Your task to perform on an android device: Search for vegetarian restaurants on Maps Image 0: 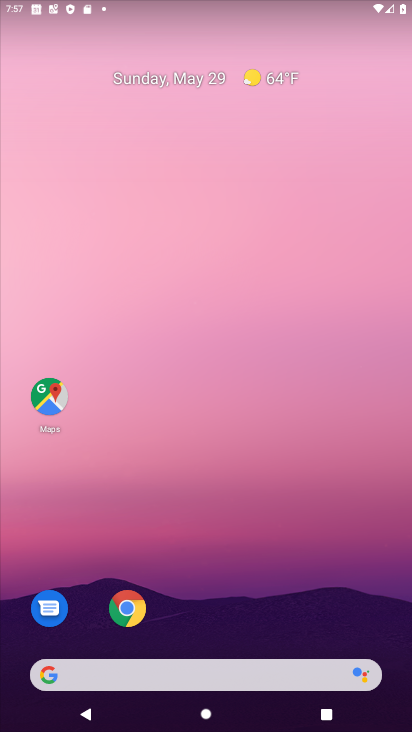
Step 0: drag from (255, 556) to (167, 104)
Your task to perform on an android device: Search for vegetarian restaurants on Maps Image 1: 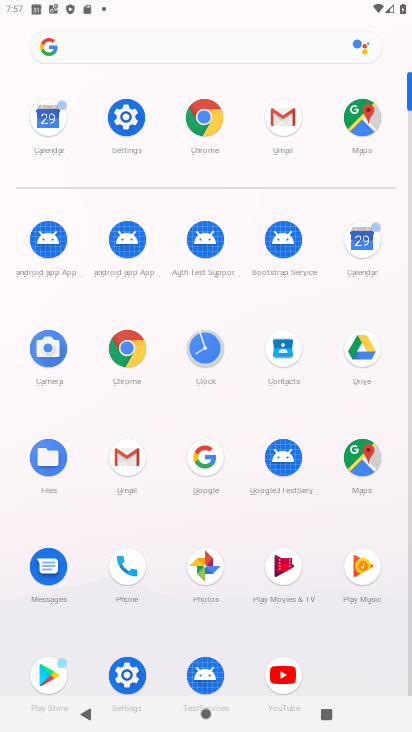
Step 1: click (354, 121)
Your task to perform on an android device: Search for vegetarian restaurants on Maps Image 2: 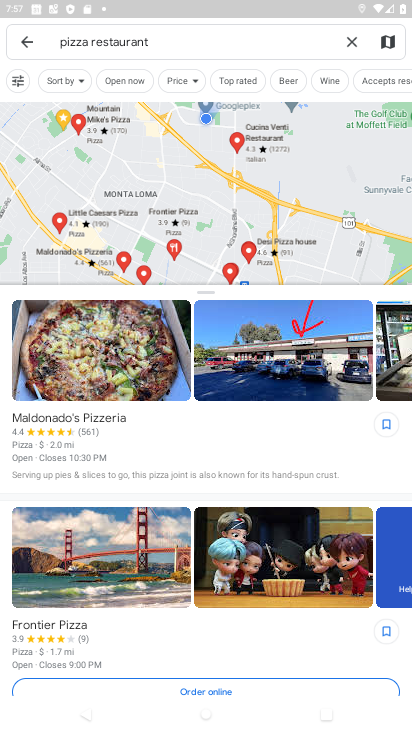
Step 2: click (346, 41)
Your task to perform on an android device: Search for vegetarian restaurants on Maps Image 3: 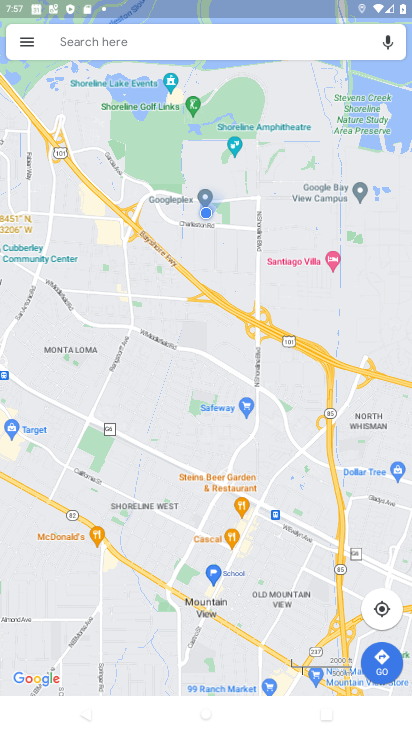
Step 3: click (184, 41)
Your task to perform on an android device: Search for vegetarian restaurants on Maps Image 4: 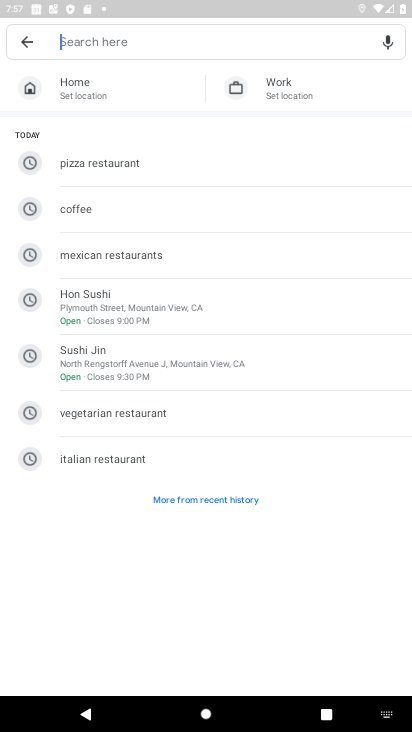
Step 4: click (122, 407)
Your task to perform on an android device: Search for vegetarian restaurants on Maps Image 5: 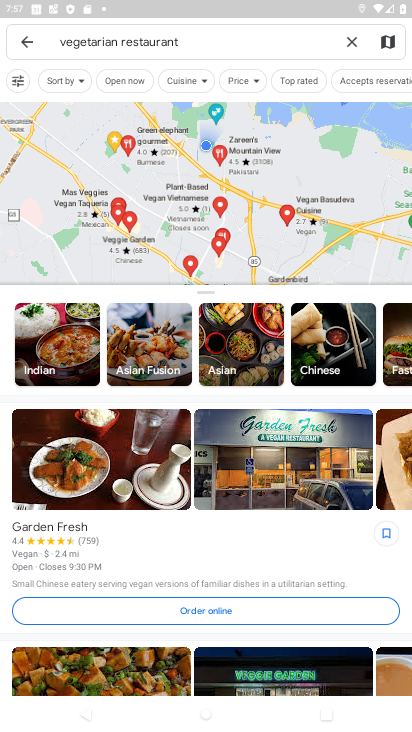
Step 5: task complete